Your task to perform on an android device: allow cookies in the chrome app Image 0: 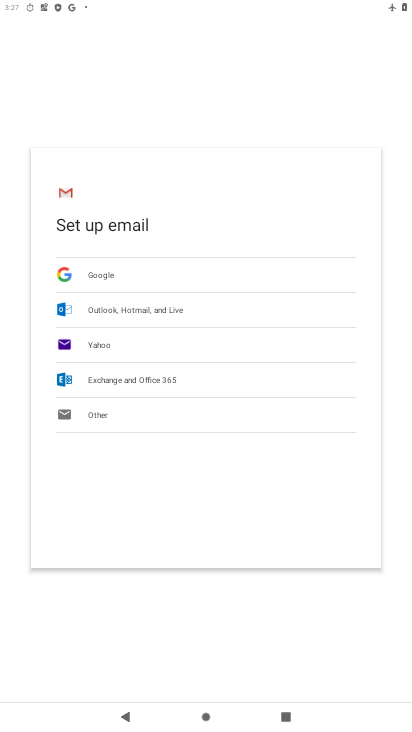
Step 0: press home button
Your task to perform on an android device: allow cookies in the chrome app Image 1: 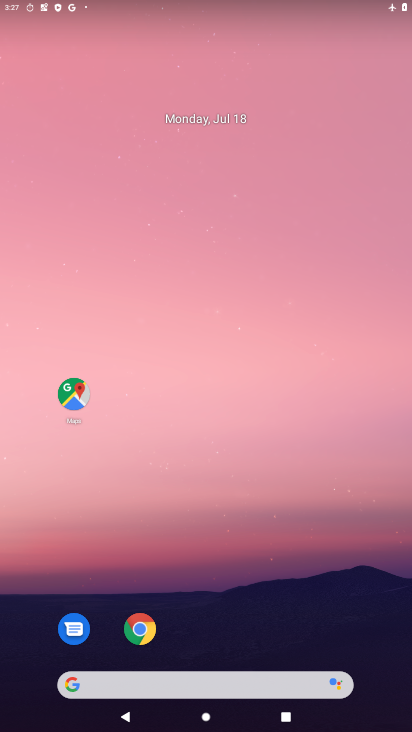
Step 1: drag from (155, 452) to (337, 27)
Your task to perform on an android device: allow cookies in the chrome app Image 2: 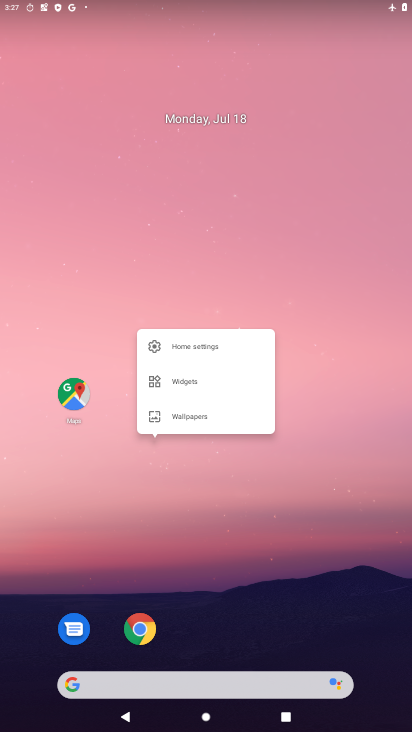
Step 2: click (208, 633)
Your task to perform on an android device: allow cookies in the chrome app Image 3: 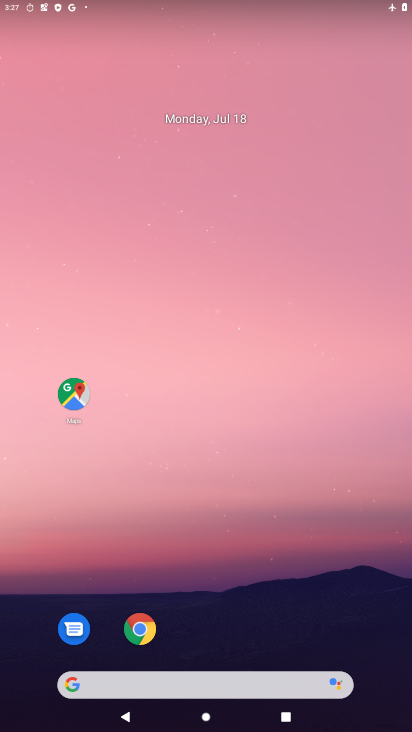
Step 3: drag from (211, 643) to (134, 0)
Your task to perform on an android device: allow cookies in the chrome app Image 4: 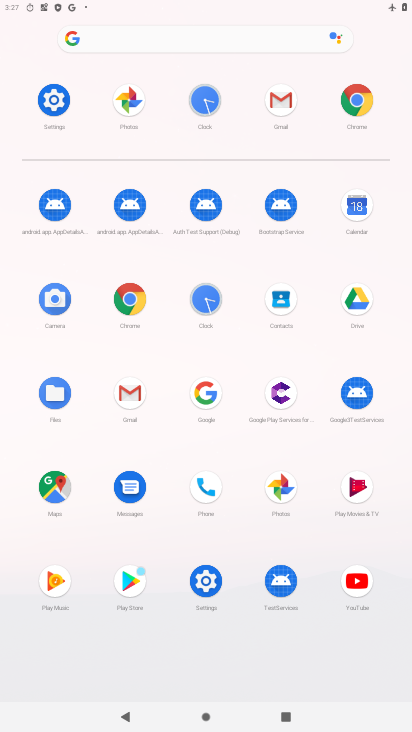
Step 4: click (369, 118)
Your task to perform on an android device: allow cookies in the chrome app Image 5: 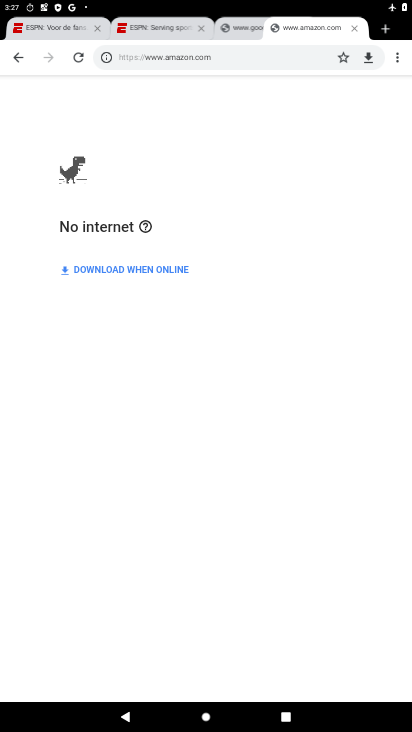
Step 5: drag from (395, 55) to (269, 392)
Your task to perform on an android device: allow cookies in the chrome app Image 6: 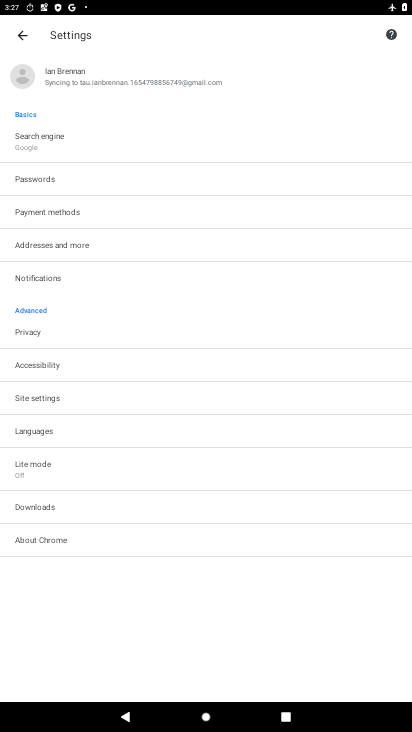
Step 6: click (37, 400)
Your task to perform on an android device: allow cookies in the chrome app Image 7: 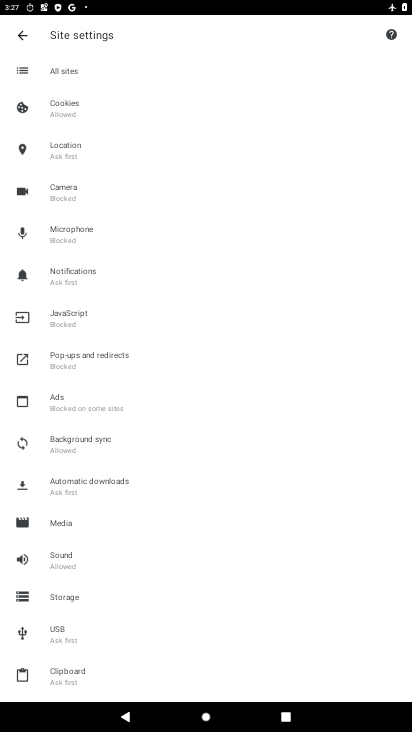
Step 7: click (55, 115)
Your task to perform on an android device: allow cookies in the chrome app Image 8: 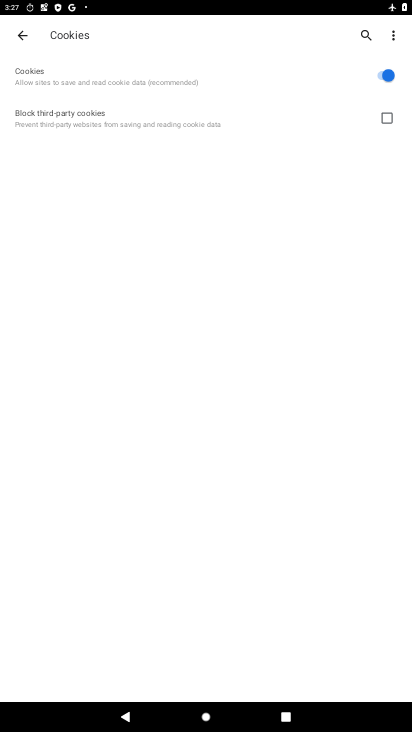
Step 8: task complete